Your task to perform on an android device: read, delete, or share a saved page in the chrome app Image 0: 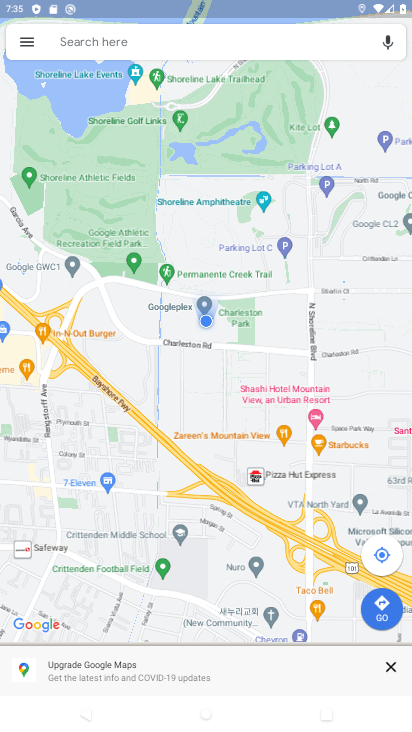
Step 0: drag from (180, 563) to (227, 238)
Your task to perform on an android device: read, delete, or share a saved page in the chrome app Image 1: 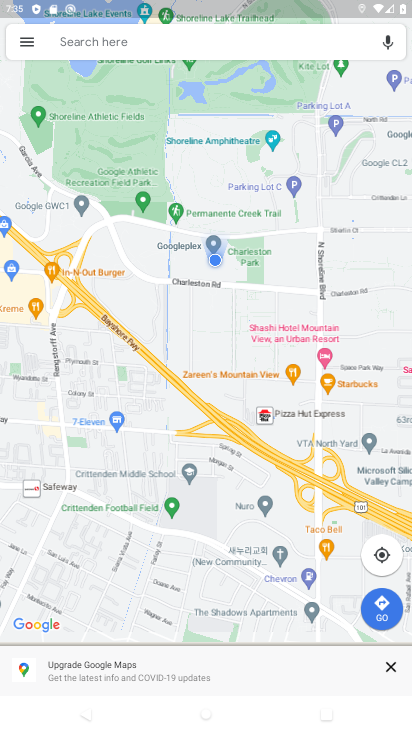
Step 1: drag from (238, 190) to (262, 480)
Your task to perform on an android device: read, delete, or share a saved page in the chrome app Image 2: 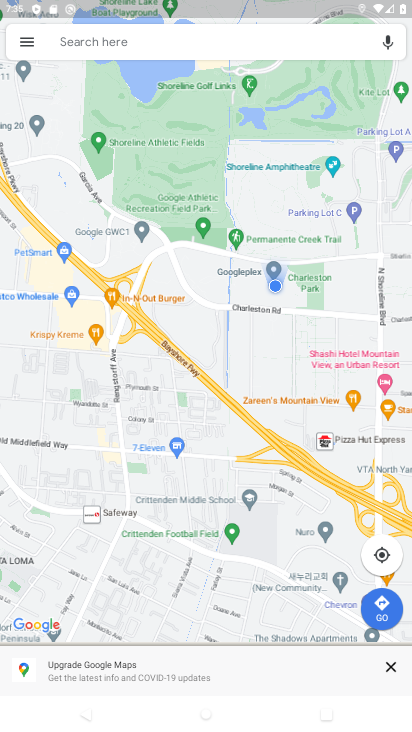
Step 2: press home button
Your task to perform on an android device: read, delete, or share a saved page in the chrome app Image 3: 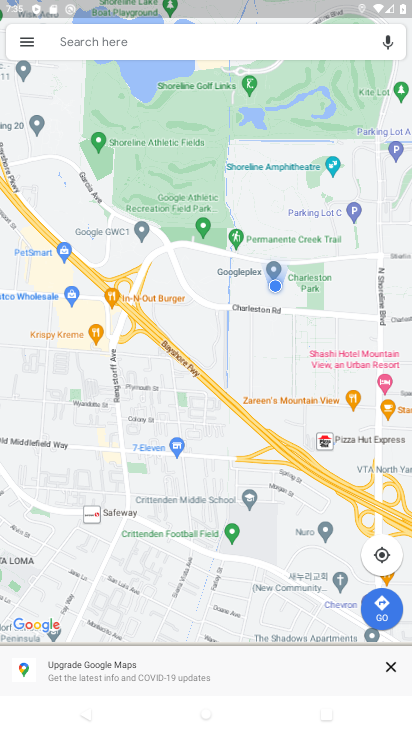
Step 3: drag from (165, 425) to (229, 6)
Your task to perform on an android device: read, delete, or share a saved page in the chrome app Image 4: 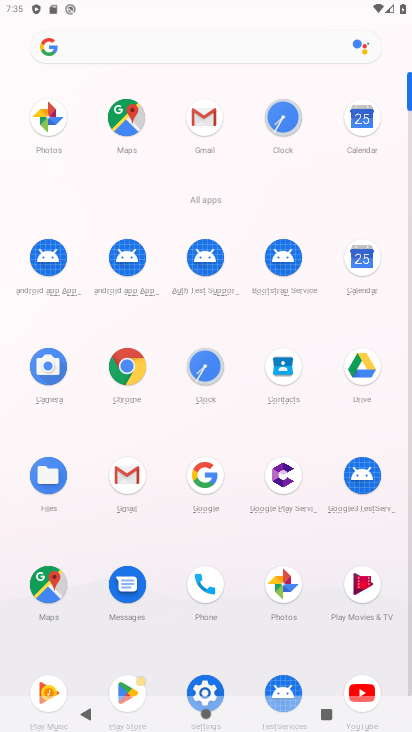
Step 4: click (127, 356)
Your task to perform on an android device: read, delete, or share a saved page in the chrome app Image 5: 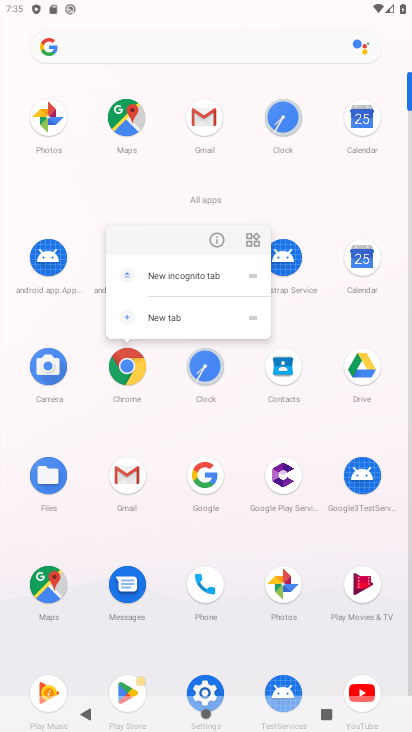
Step 5: click (216, 234)
Your task to perform on an android device: read, delete, or share a saved page in the chrome app Image 6: 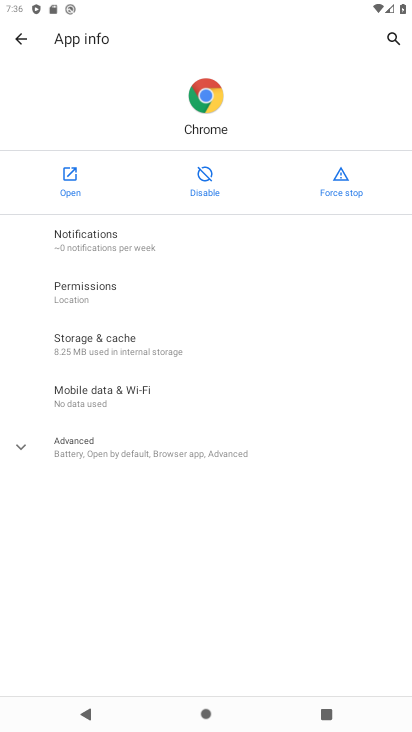
Step 6: click (68, 189)
Your task to perform on an android device: read, delete, or share a saved page in the chrome app Image 7: 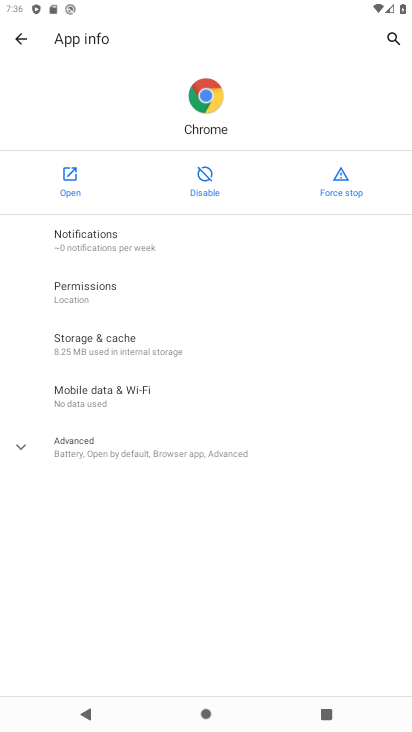
Step 7: click (67, 188)
Your task to perform on an android device: read, delete, or share a saved page in the chrome app Image 8: 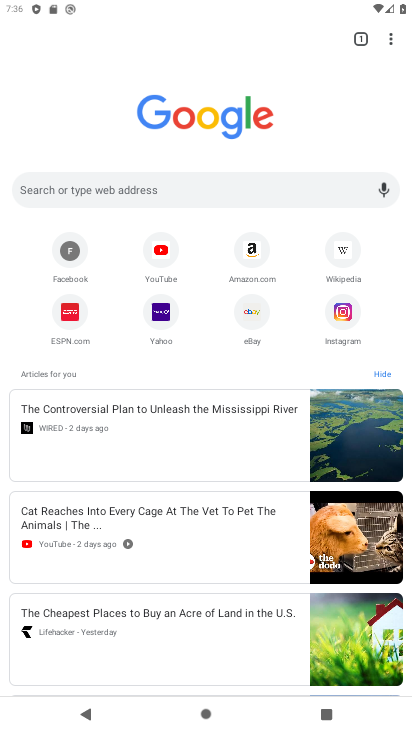
Step 8: drag from (389, 42) to (274, 154)
Your task to perform on an android device: read, delete, or share a saved page in the chrome app Image 9: 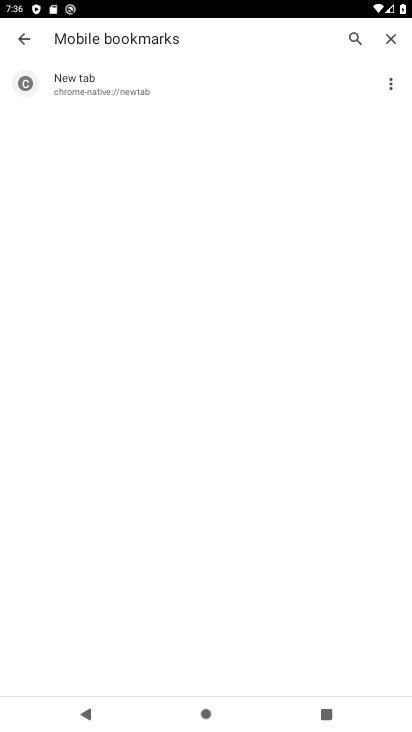
Step 9: click (129, 89)
Your task to perform on an android device: read, delete, or share a saved page in the chrome app Image 10: 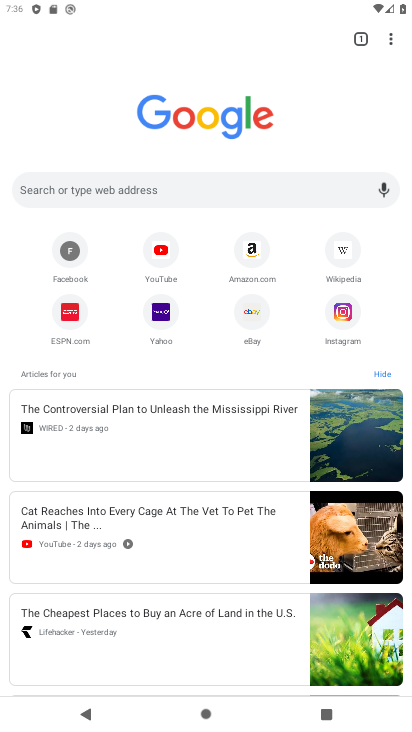
Step 10: task complete